Your task to perform on an android device: Open my contact list Image 0: 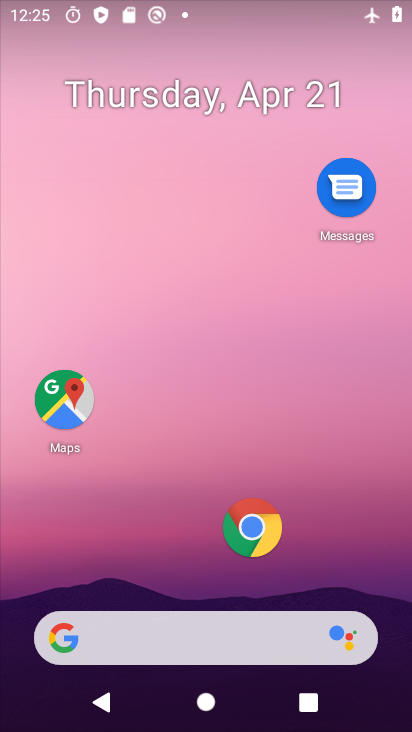
Step 0: drag from (319, 591) to (309, 128)
Your task to perform on an android device: Open my contact list Image 1: 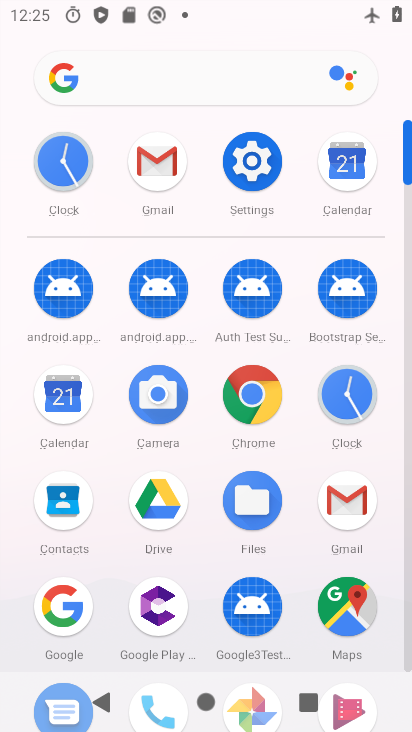
Step 1: click (58, 504)
Your task to perform on an android device: Open my contact list Image 2: 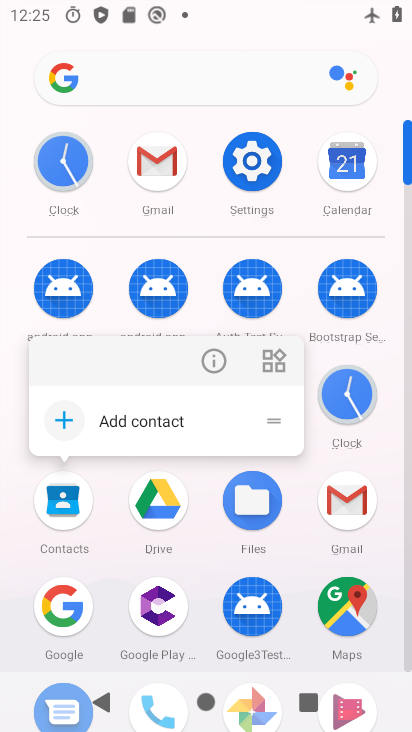
Step 2: click (58, 504)
Your task to perform on an android device: Open my contact list Image 3: 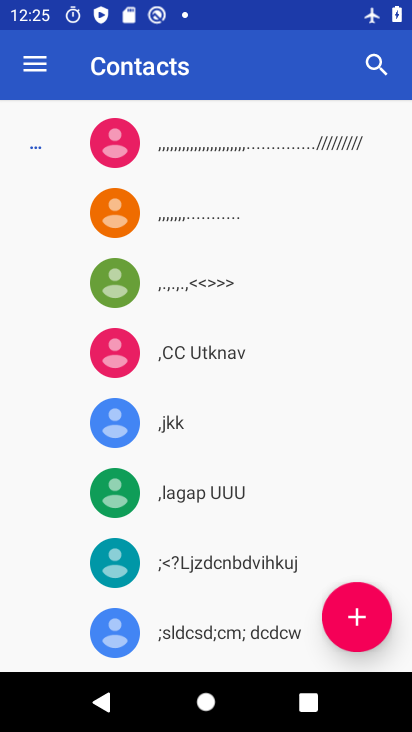
Step 3: task complete